Your task to perform on an android device: Check the settings for the Pandora app Image 0: 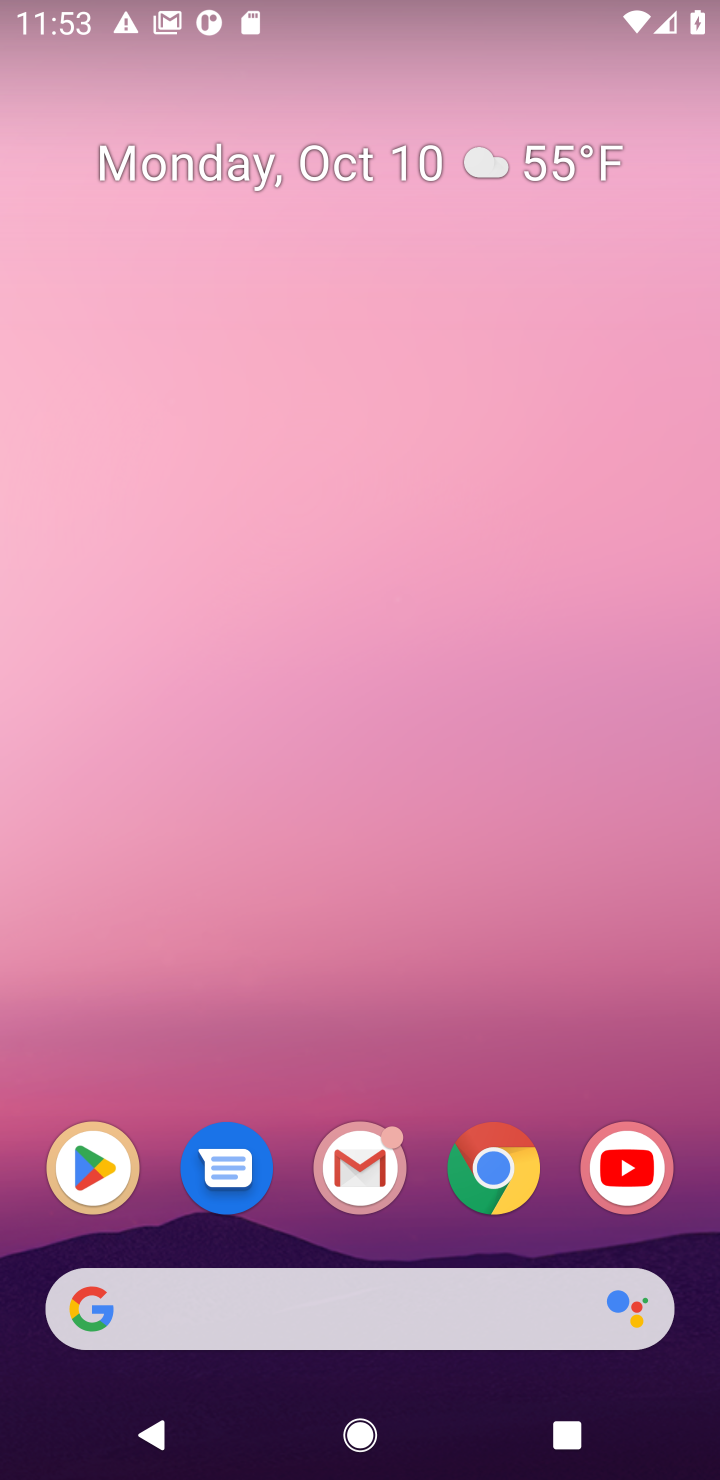
Step 0: drag from (513, 429) to (548, 271)
Your task to perform on an android device: Check the settings for the Pandora app Image 1: 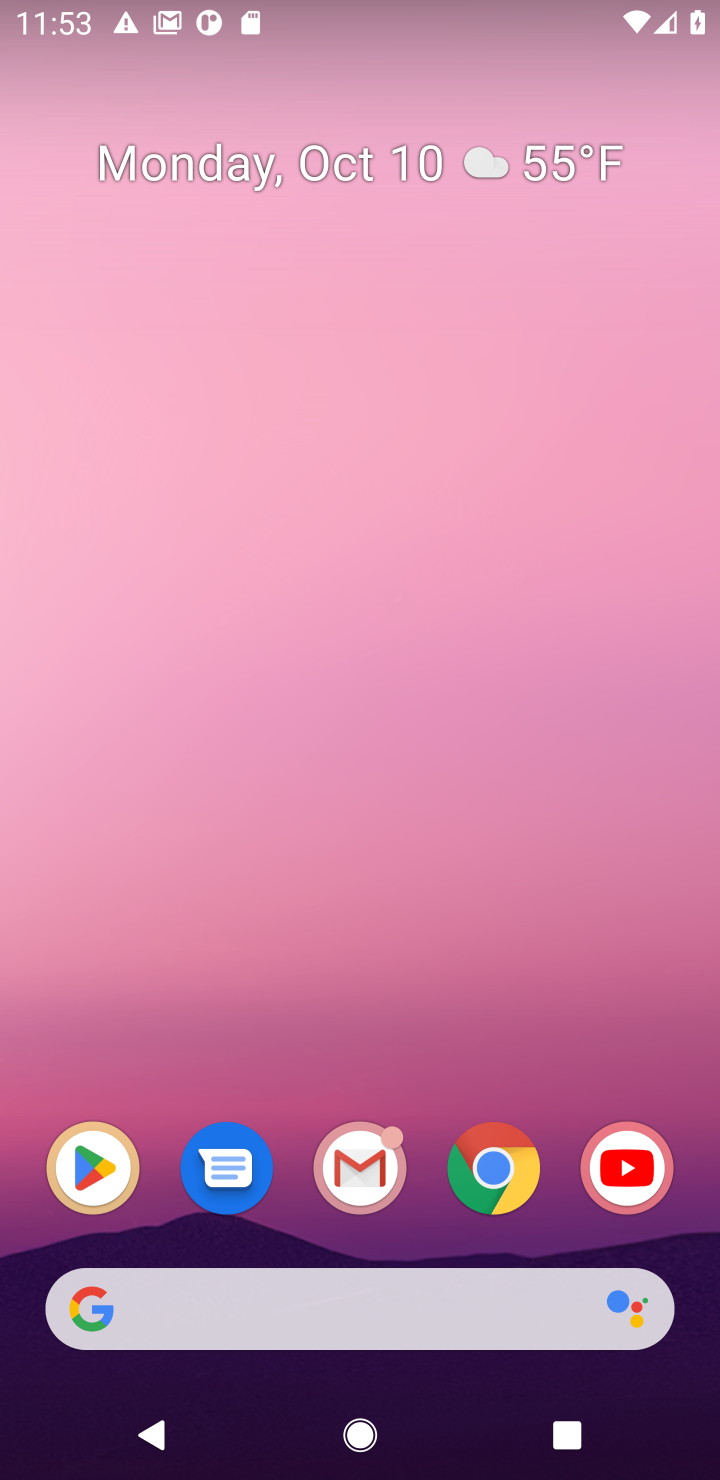
Step 1: drag from (471, 1265) to (471, 392)
Your task to perform on an android device: Check the settings for the Pandora app Image 2: 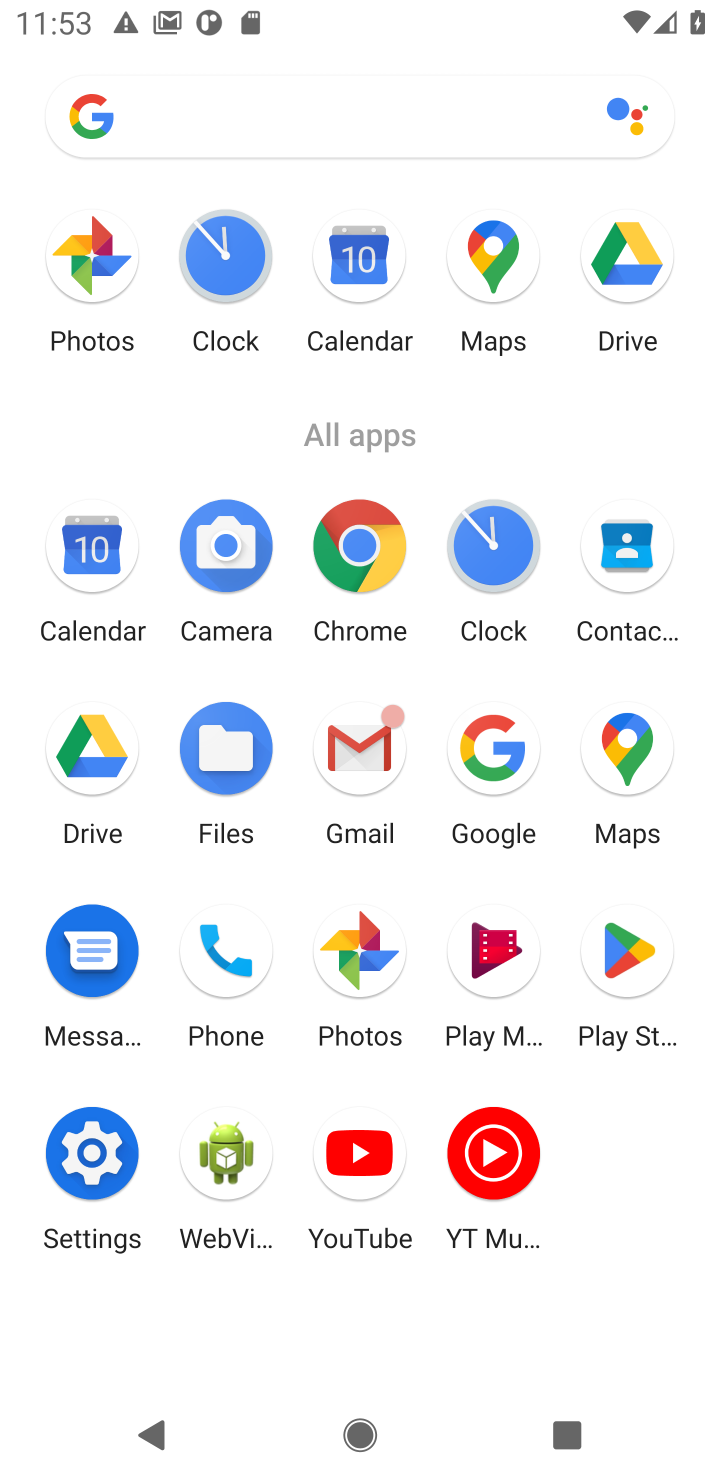
Step 2: click (505, 827)
Your task to perform on an android device: Check the settings for the Pandora app Image 3: 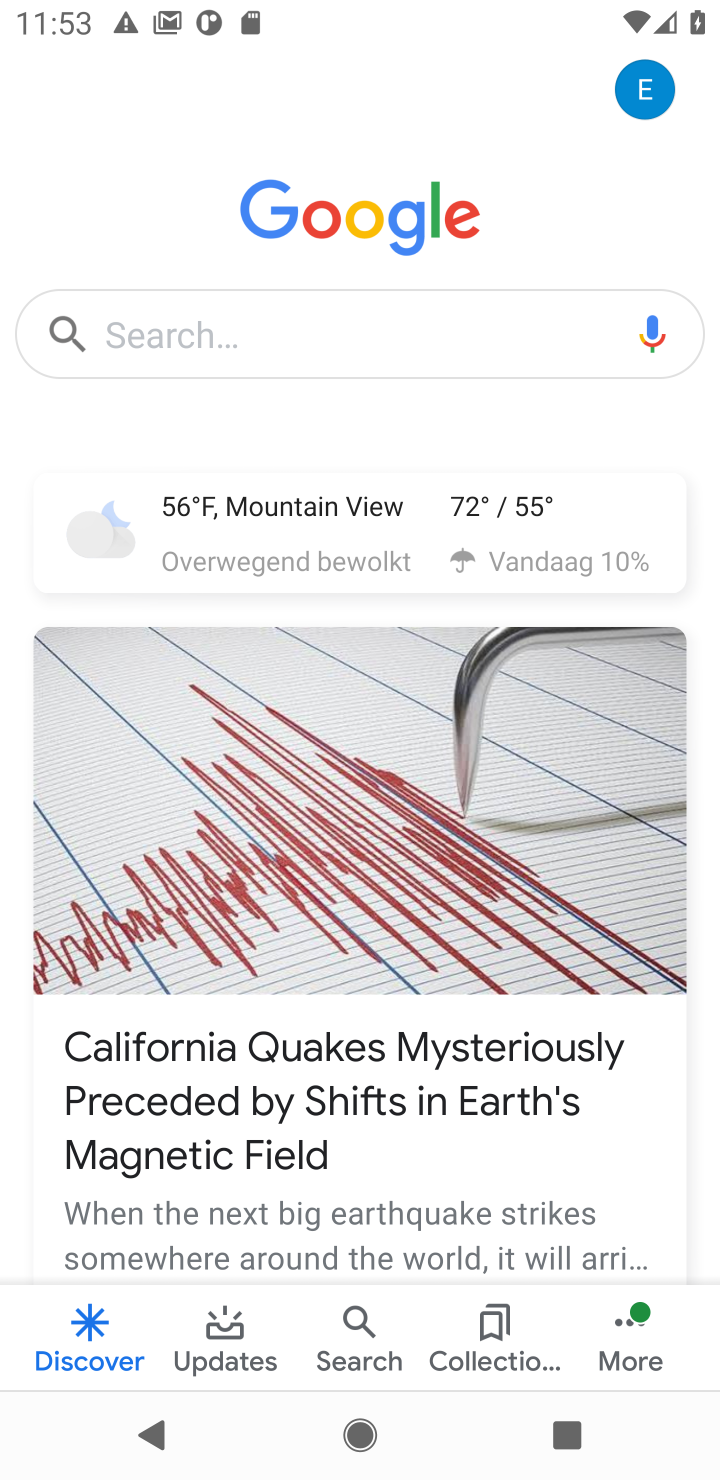
Step 3: click (325, 350)
Your task to perform on an android device: Check the settings for the Pandora app Image 4: 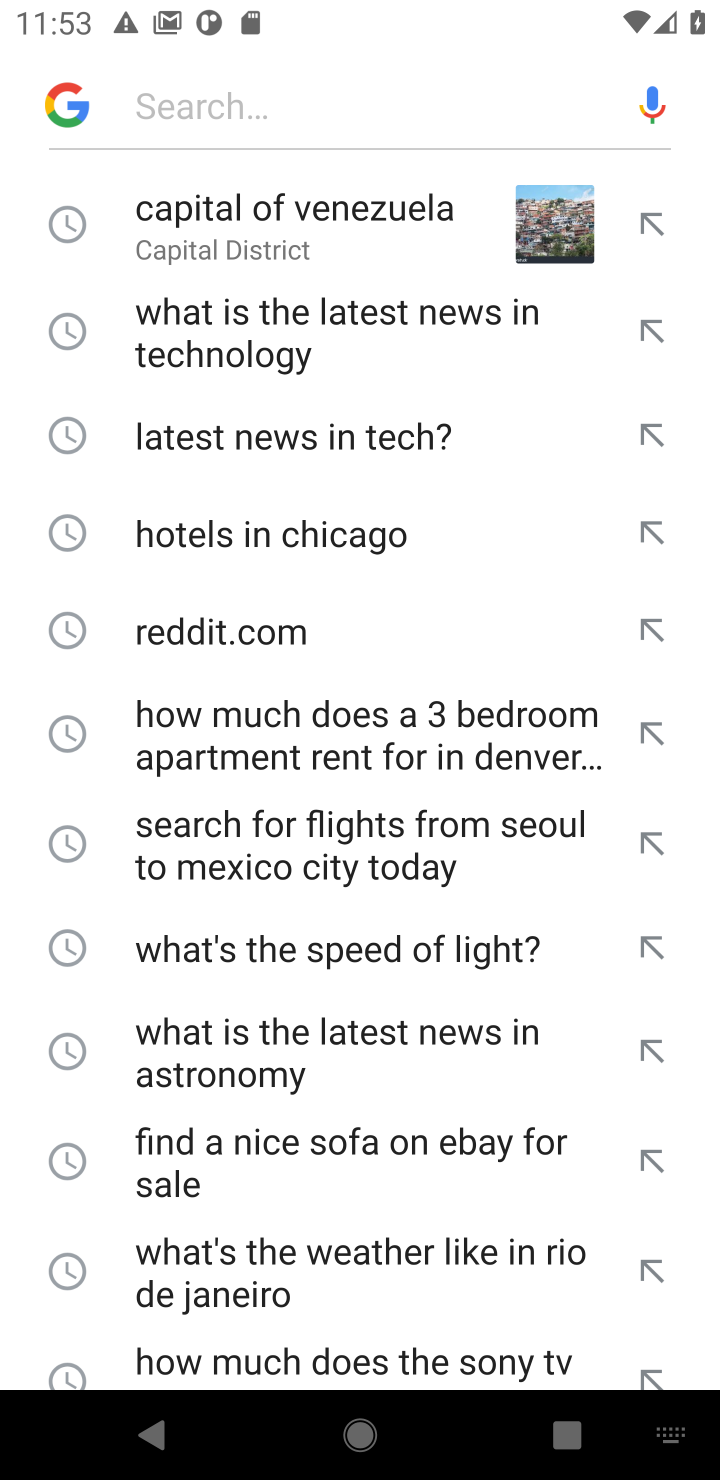
Step 4: task complete